Your task to perform on an android device: delete a single message in the gmail app Image 0: 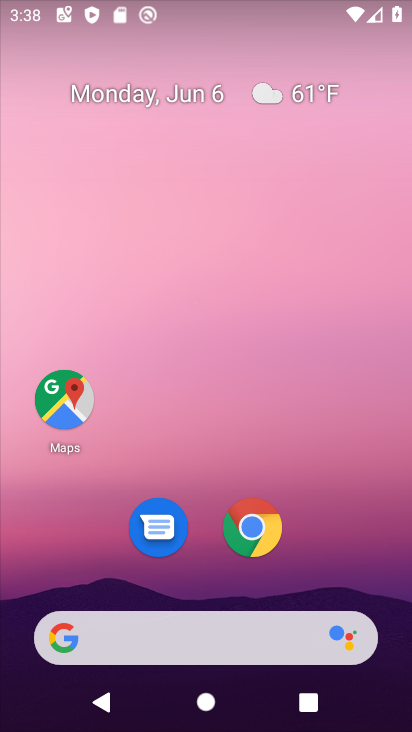
Step 0: drag from (90, 625) to (198, 141)
Your task to perform on an android device: delete a single message in the gmail app Image 1: 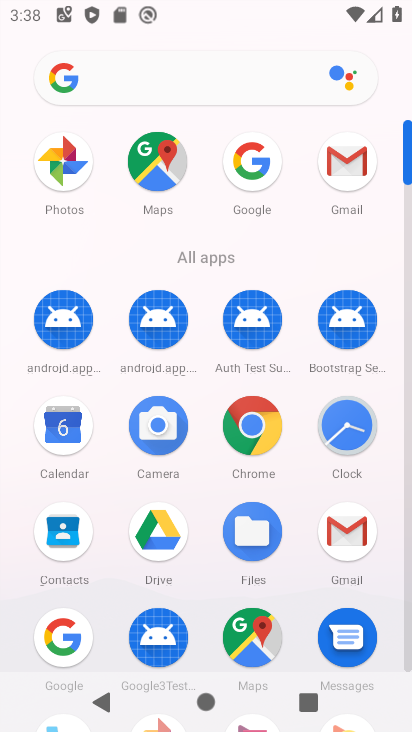
Step 1: click (362, 527)
Your task to perform on an android device: delete a single message in the gmail app Image 2: 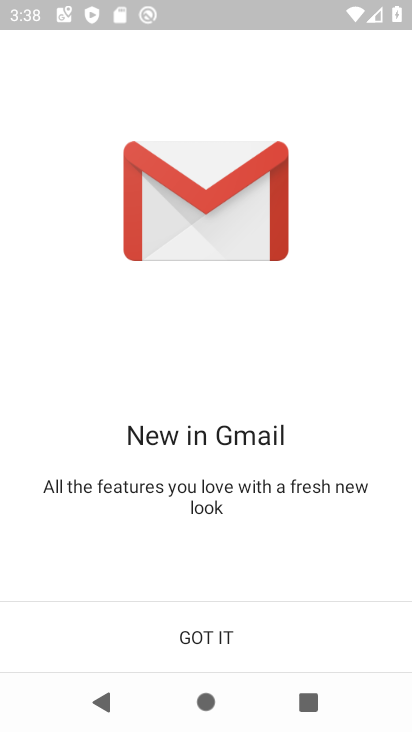
Step 2: click (270, 653)
Your task to perform on an android device: delete a single message in the gmail app Image 3: 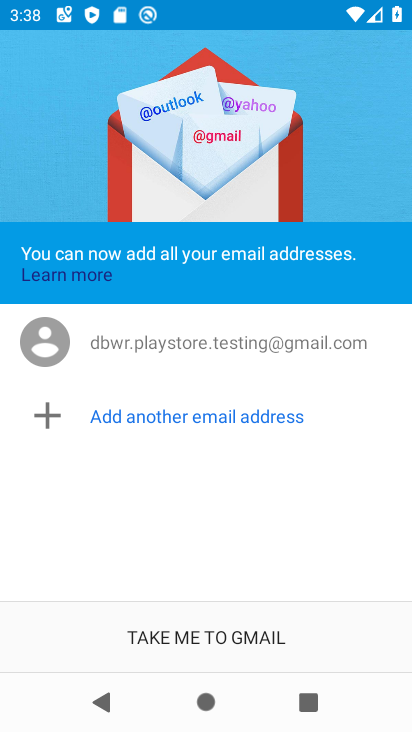
Step 3: click (216, 653)
Your task to perform on an android device: delete a single message in the gmail app Image 4: 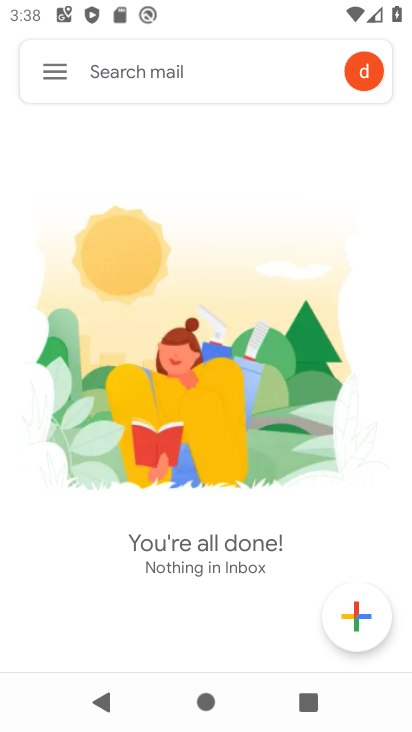
Step 4: click (59, 95)
Your task to perform on an android device: delete a single message in the gmail app Image 5: 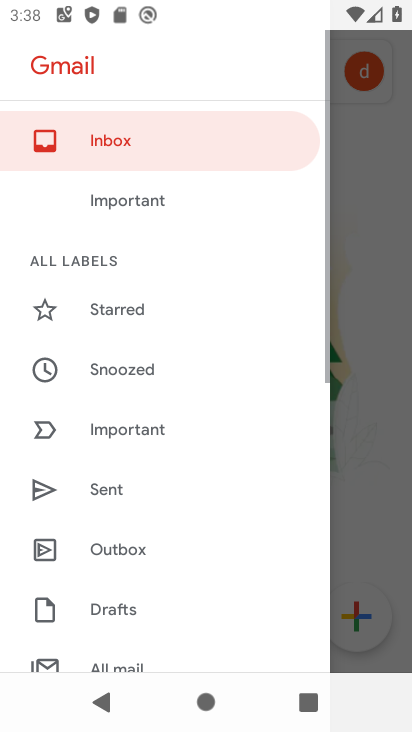
Step 5: drag from (152, 607) to (257, 155)
Your task to perform on an android device: delete a single message in the gmail app Image 6: 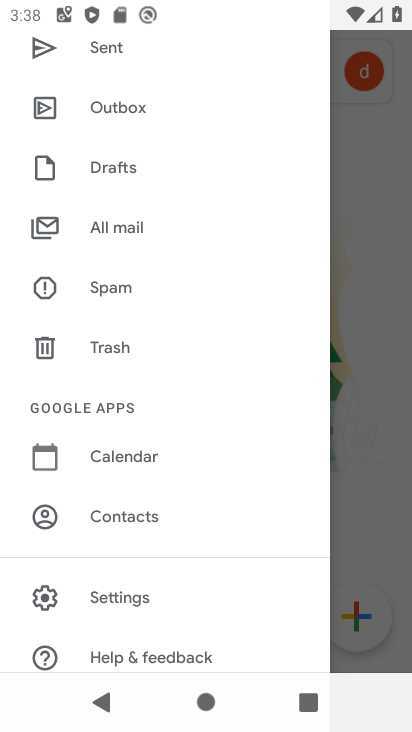
Step 6: drag from (105, 608) to (185, 339)
Your task to perform on an android device: delete a single message in the gmail app Image 7: 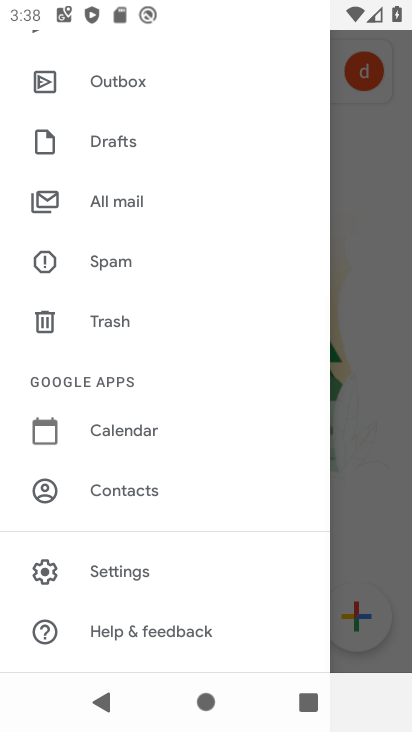
Step 7: click (130, 208)
Your task to perform on an android device: delete a single message in the gmail app Image 8: 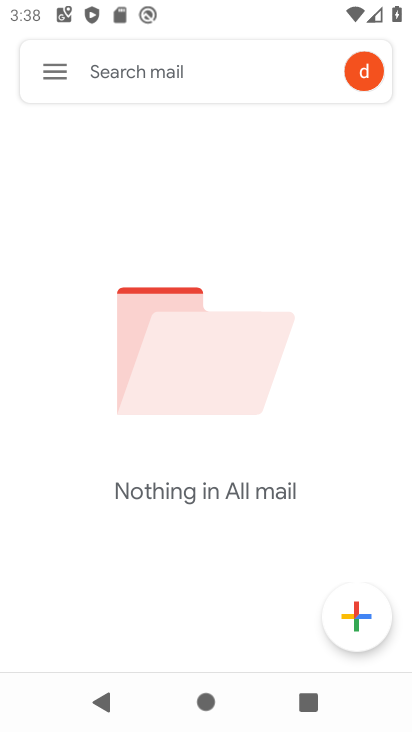
Step 8: task complete